Your task to perform on an android device: When is my next appointment? Image 0: 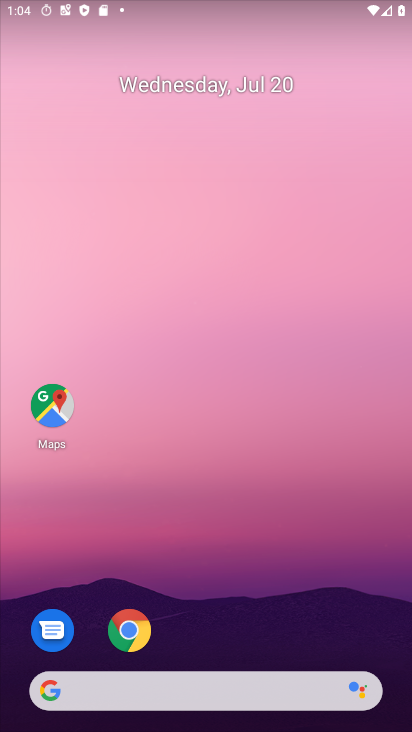
Step 0: drag from (251, 624) to (252, 227)
Your task to perform on an android device: When is my next appointment? Image 1: 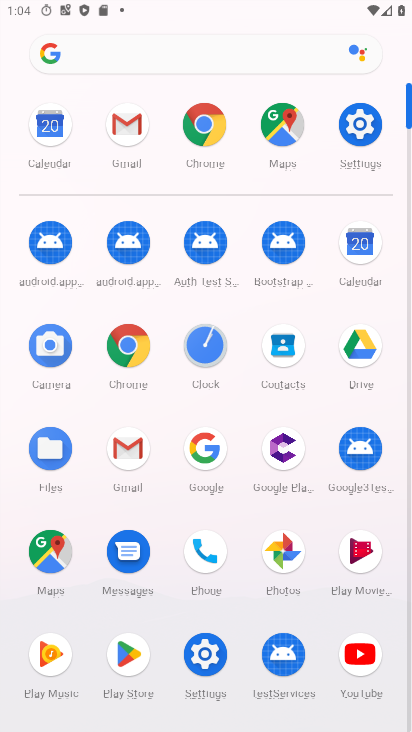
Step 1: click (368, 244)
Your task to perform on an android device: When is my next appointment? Image 2: 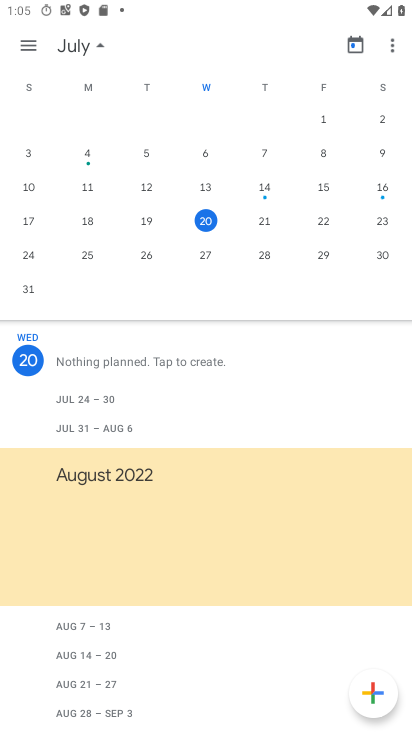
Step 2: click (210, 216)
Your task to perform on an android device: When is my next appointment? Image 3: 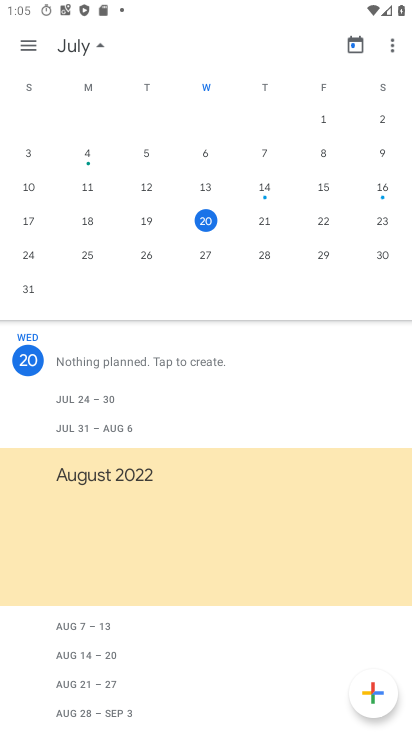
Step 3: task complete